Your task to perform on an android device: turn off sleep mode Image 0: 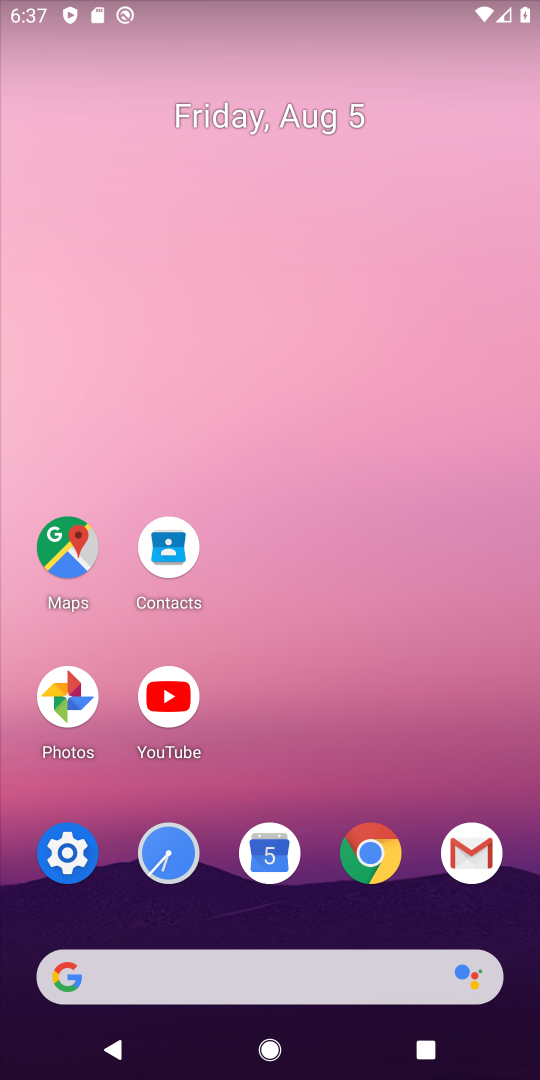
Step 0: click (65, 856)
Your task to perform on an android device: turn off sleep mode Image 1: 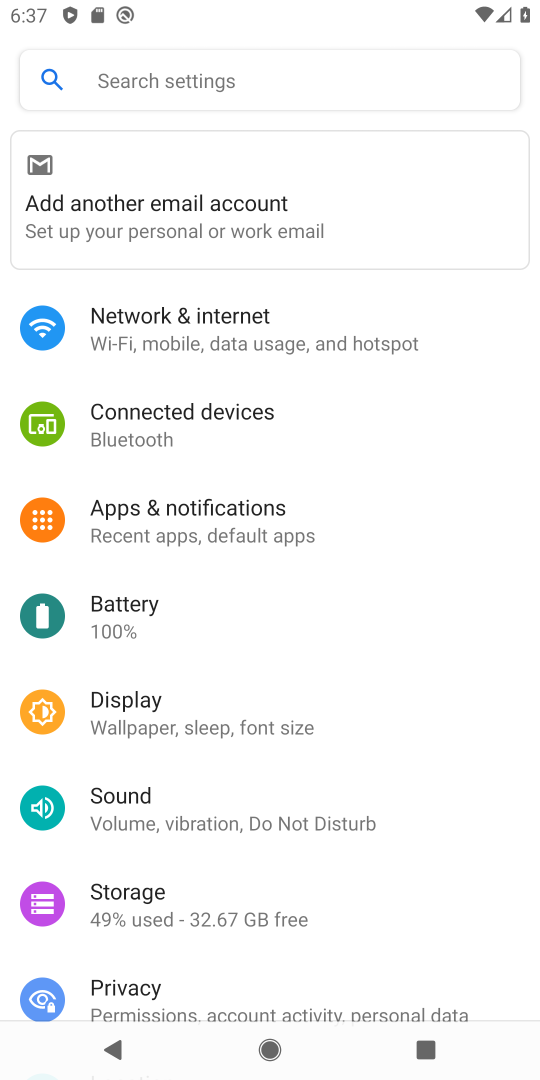
Step 1: click (116, 698)
Your task to perform on an android device: turn off sleep mode Image 2: 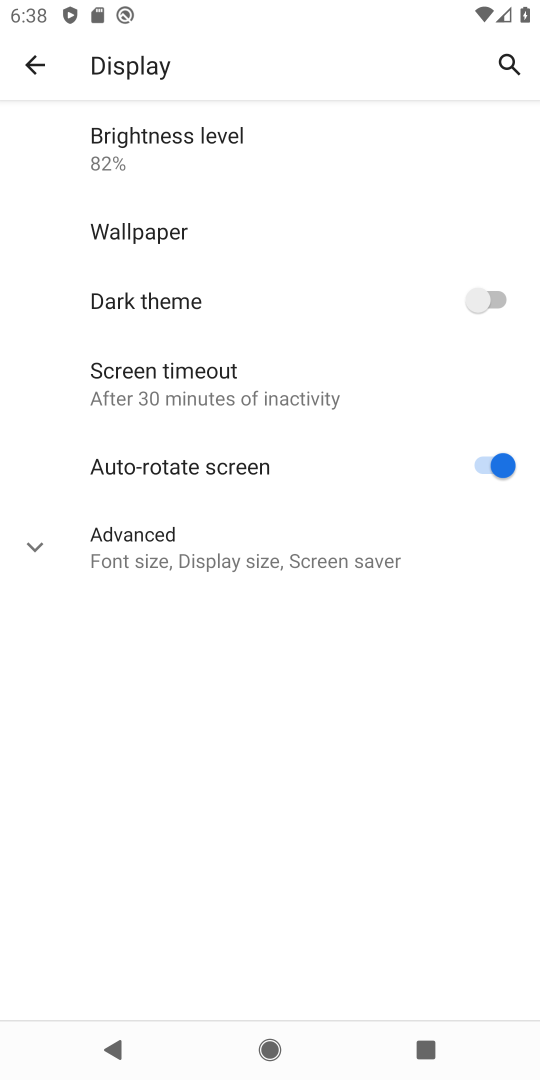
Step 2: task complete